Your task to perform on an android device: change notifications settings Image 0: 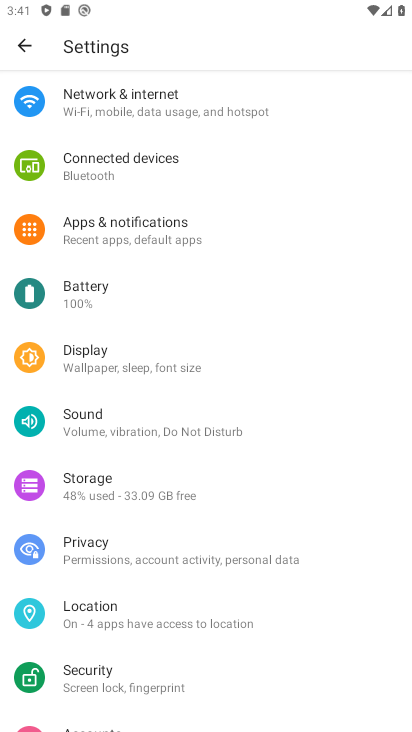
Step 0: click (155, 247)
Your task to perform on an android device: change notifications settings Image 1: 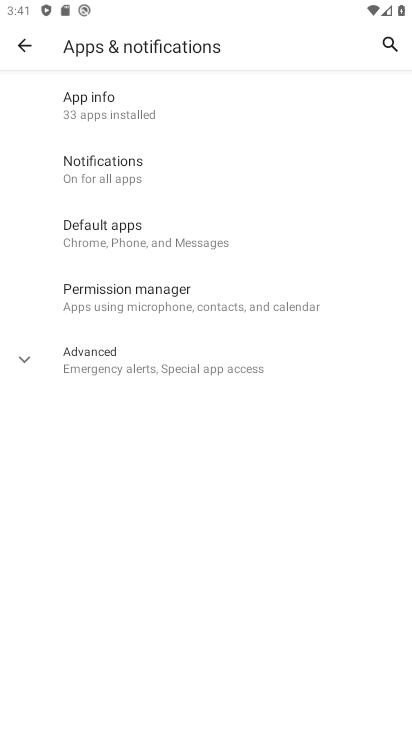
Step 1: click (140, 154)
Your task to perform on an android device: change notifications settings Image 2: 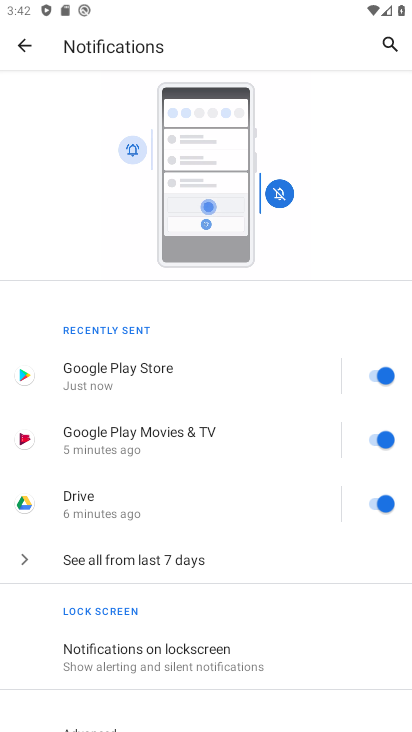
Step 2: click (381, 374)
Your task to perform on an android device: change notifications settings Image 3: 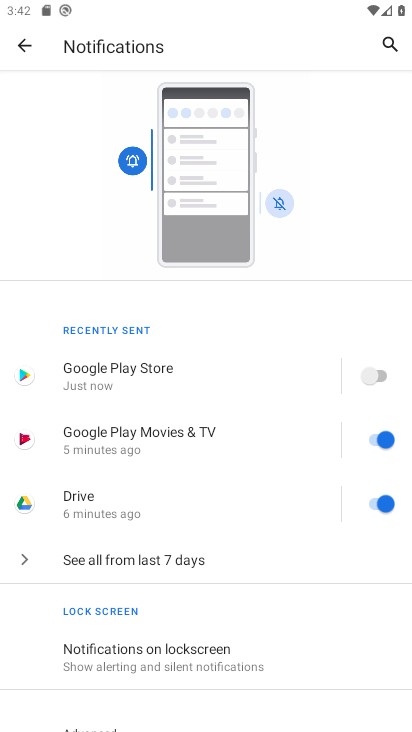
Step 3: task complete